Your task to perform on an android device: Open Youtube and go to the subscriptions tab Image 0: 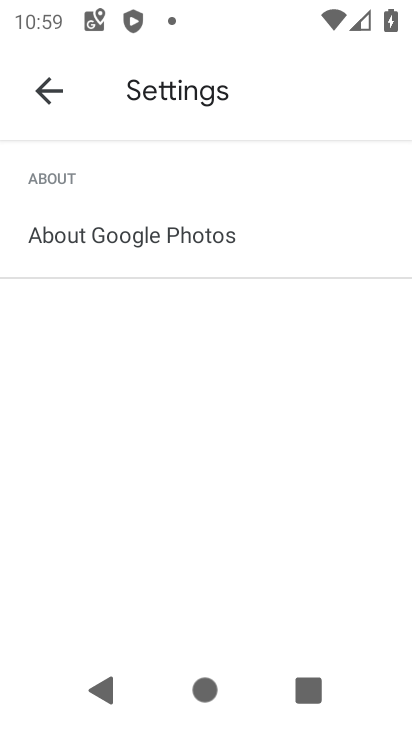
Step 0: press home button
Your task to perform on an android device: Open Youtube and go to the subscriptions tab Image 1: 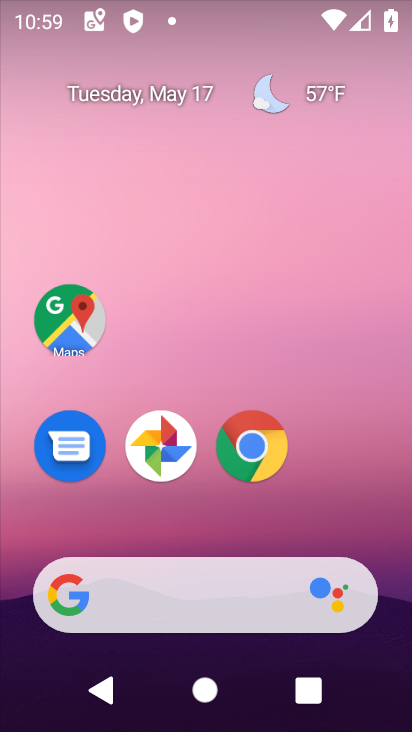
Step 1: drag from (201, 597) to (163, 112)
Your task to perform on an android device: Open Youtube and go to the subscriptions tab Image 2: 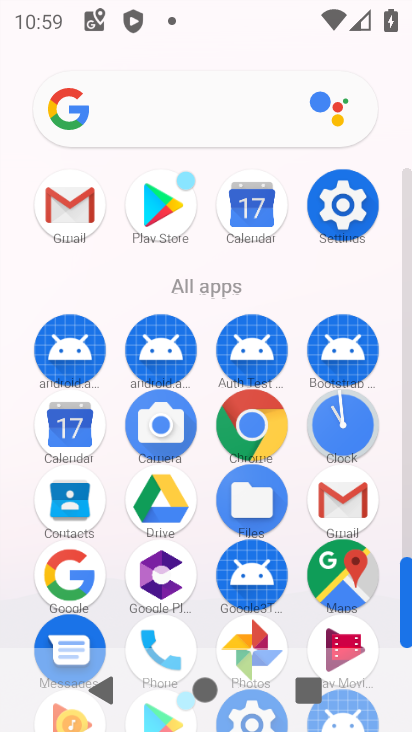
Step 2: drag from (209, 599) to (172, 178)
Your task to perform on an android device: Open Youtube and go to the subscriptions tab Image 3: 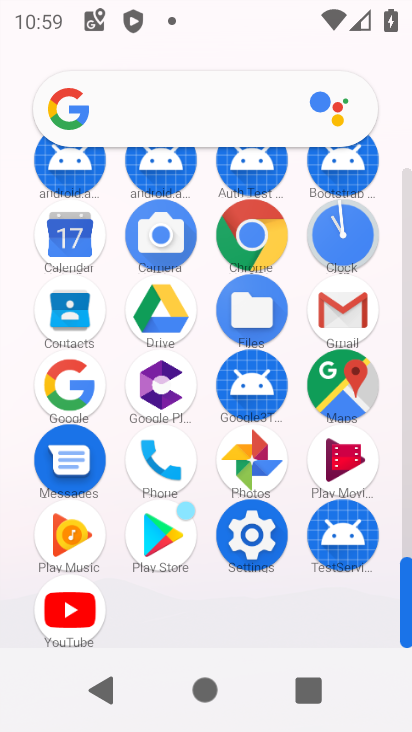
Step 3: click (81, 626)
Your task to perform on an android device: Open Youtube and go to the subscriptions tab Image 4: 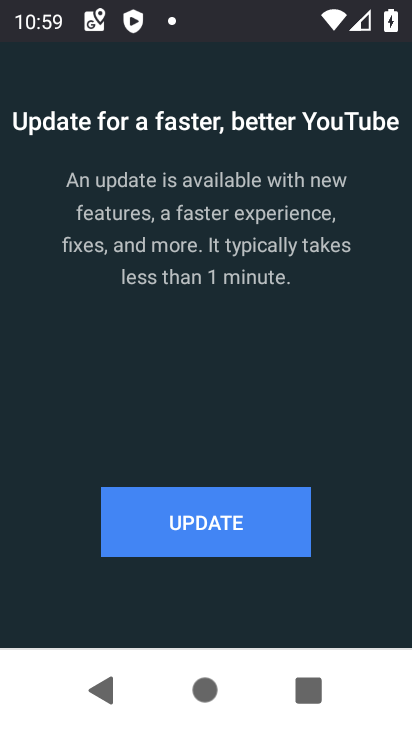
Step 4: click (191, 530)
Your task to perform on an android device: Open Youtube and go to the subscriptions tab Image 5: 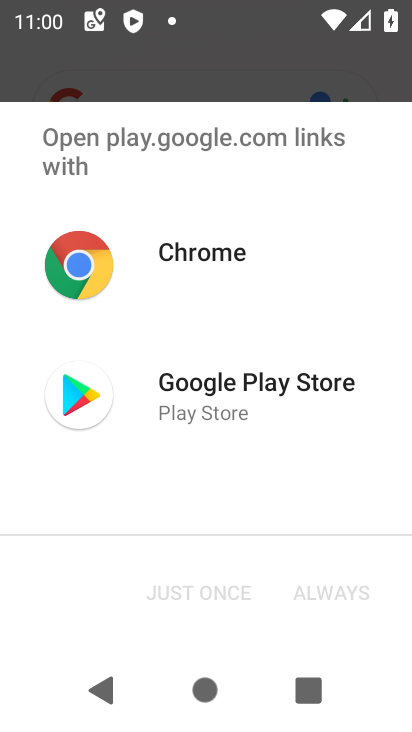
Step 5: click (182, 403)
Your task to perform on an android device: Open Youtube and go to the subscriptions tab Image 6: 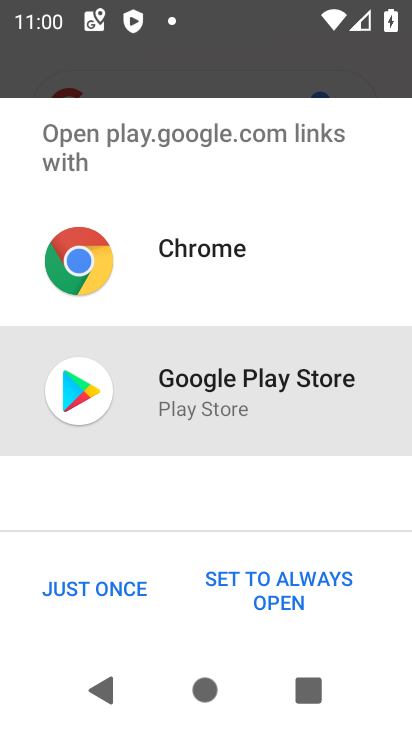
Step 6: click (49, 595)
Your task to perform on an android device: Open Youtube and go to the subscriptions tab Image 7: 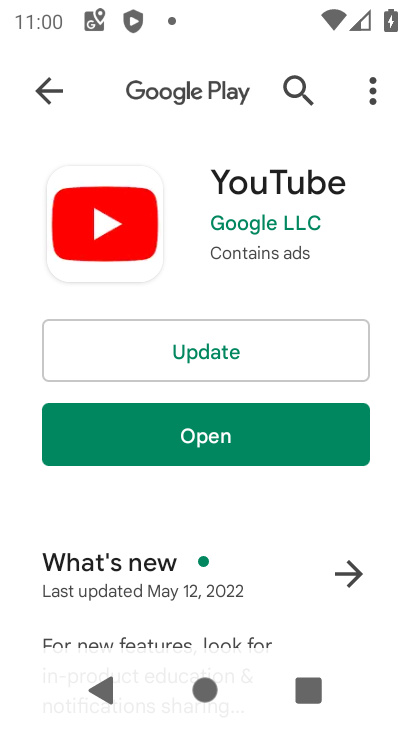
Step 7: click (125, 369)
Your task to perform on an android device: Open Youtube and go to the subscriptions tab Image 8: 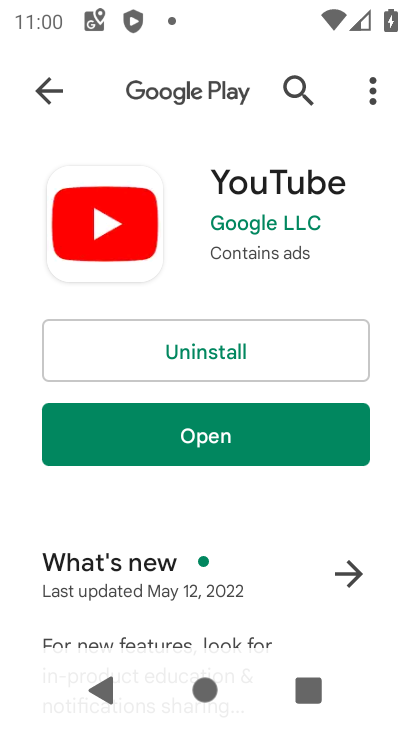
Step 8: click (201, 437)
Your task to perform on an android device: Open Youtube and go to the subscriptions tab Image 9: 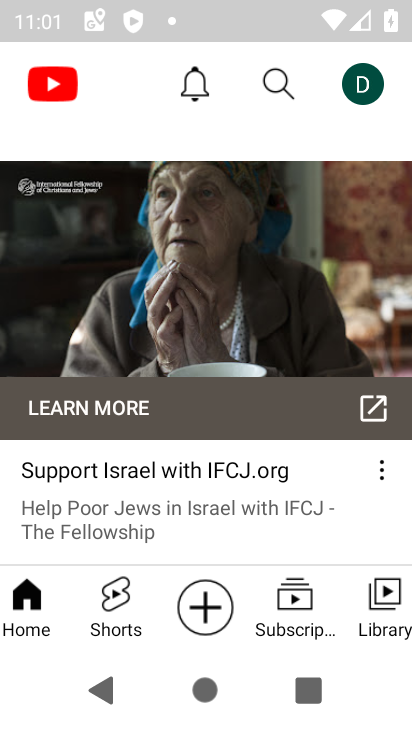
Step 9: click (303, 626)
Your task to perform on an android device: Open Youtube and go to the subscriptions tab Image 10: 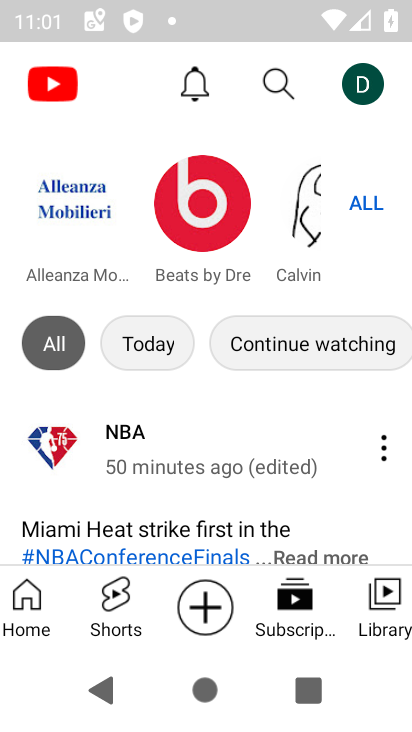
Step 10: task complete